Your task to perform on an android device: What's on my calendar today? Image 0: 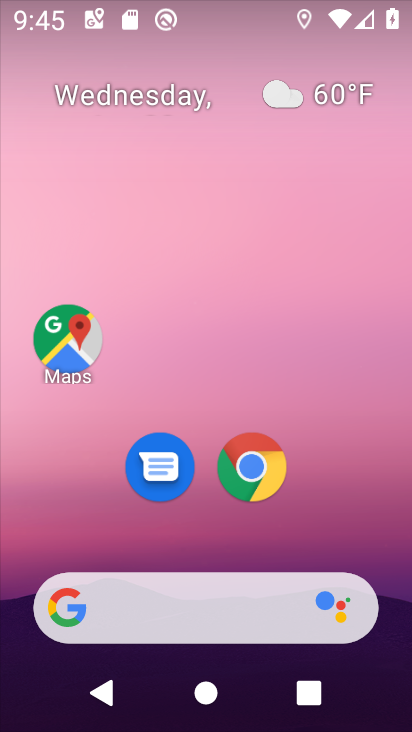
Step 0: drag from (331, 517) to (272, 78)
Your task to perform on an android device: What's on my calendar today? Image 1: 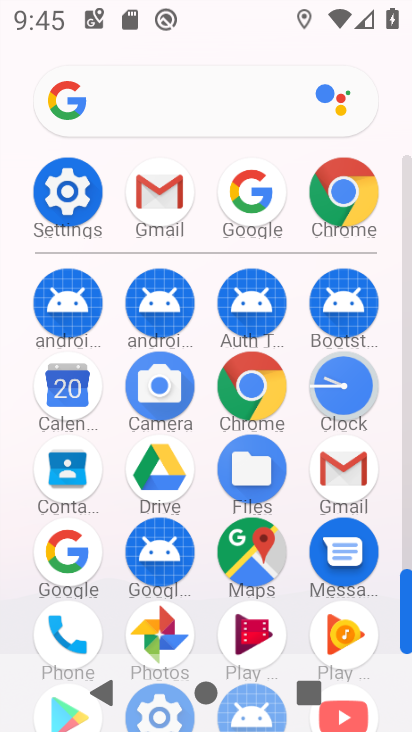
Step 1: click (60, 386)
Your task to perform on an android device: What's on my calendar today? Image 2: 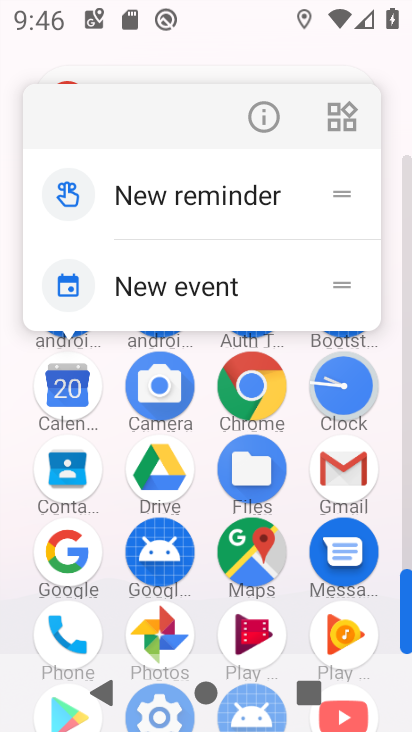
Step 2: click (60, 388)
Your task to perform on an android device: What's on my calendar today? Image 3: 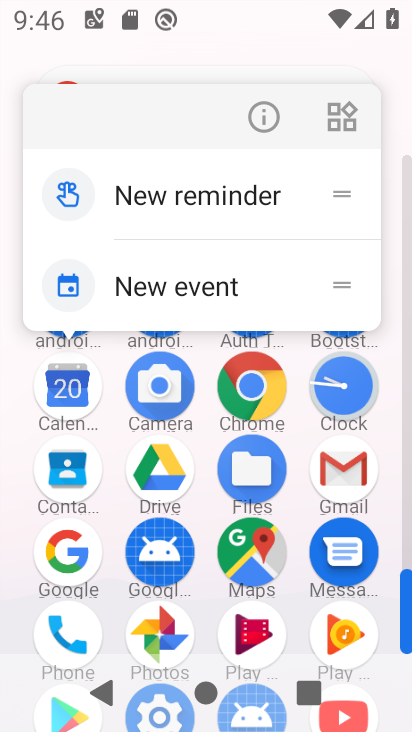
Step 3: click (59, 388)
Your task to perform on an android device: What's on my calendar today? Image 4: 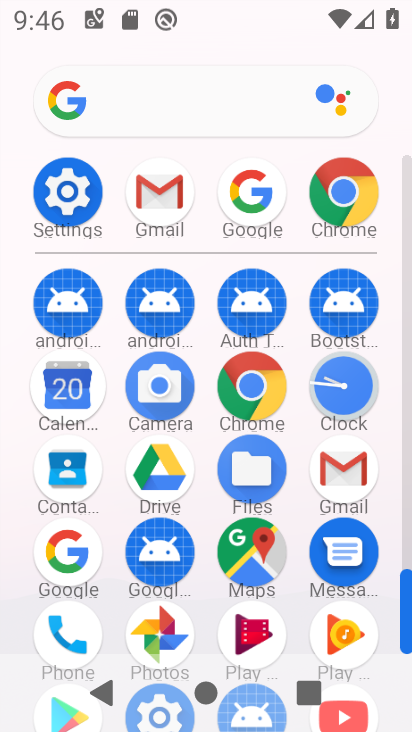
Step 4: click (59, 388)
Your task to perform on an android device: What's on my calendar today? Image 5: 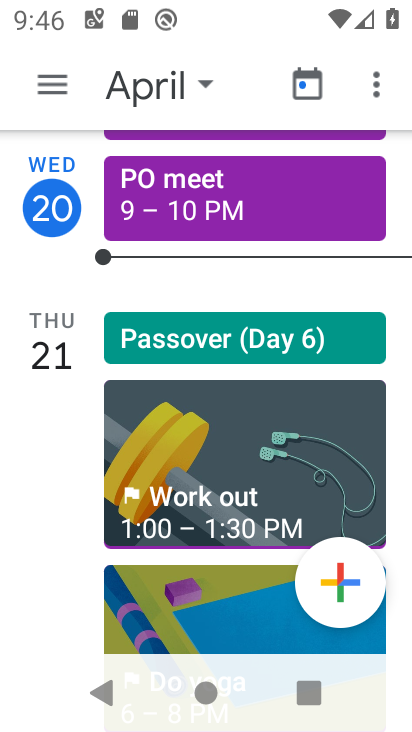
Step 5: click (190, 99)
Your task to perform on an android device: What's on my calendar today? Image 6: 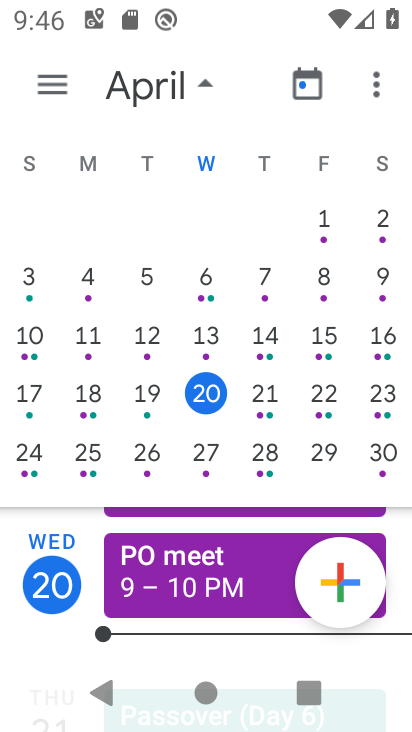
Step 6: click (211, 396)
Your task to perform on an android device: What's on my calendar today? Image 7: 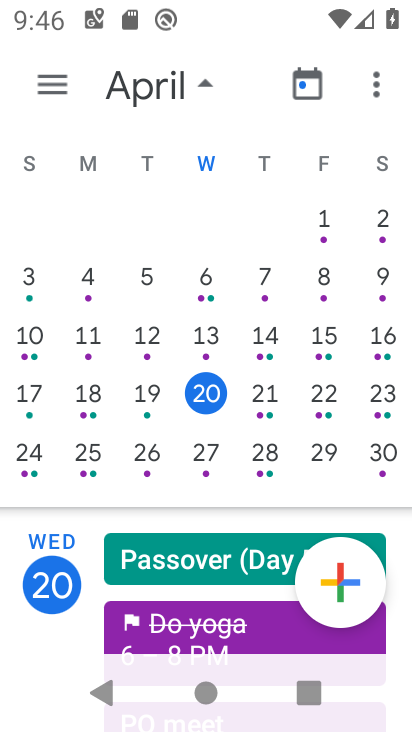
Step 7: task complete